Your task to perform on an android device: Open my contact list Image 0: 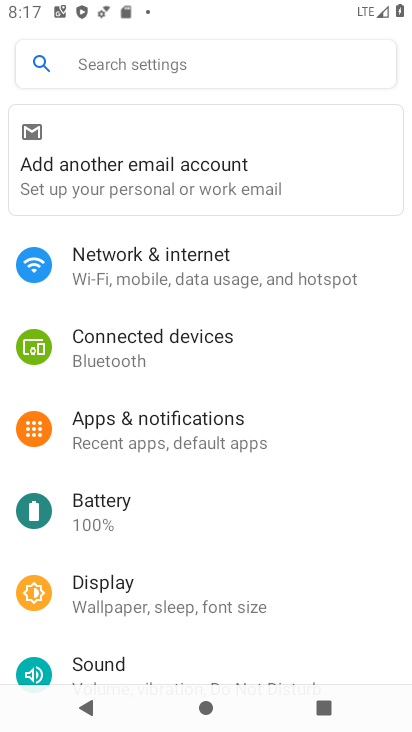
Step 0: drag from (139, 629) to (173, 280)
Your task to perform on an android device: Open my contact list Image 1: 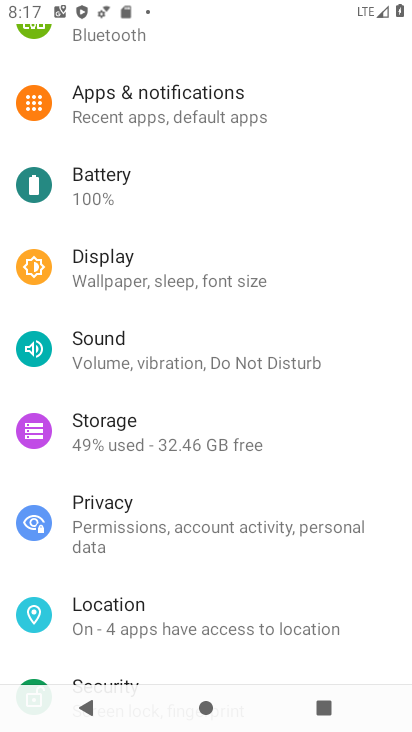
Step 1: press home button
Your task to perform on an android device: Open my contact list Image 2: 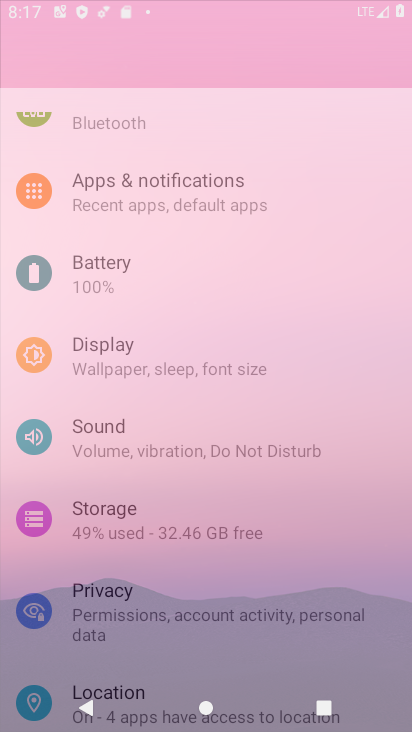
Step 2: press home button
Your task to perform on an android device: Open my contact list Image 3: 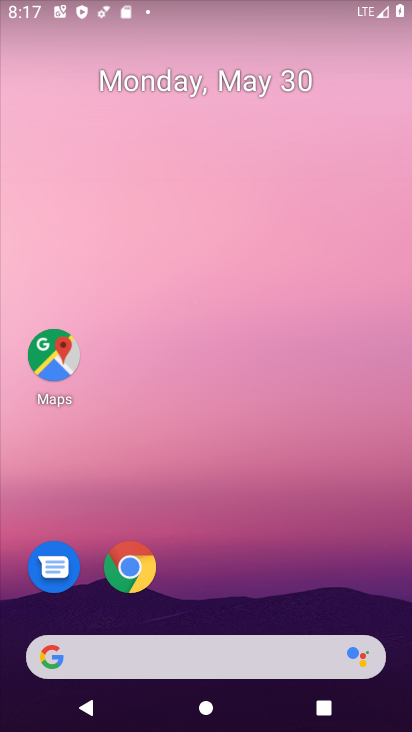
Step 3: drag from (282, 607) to (262, 145)
Your task to perform on an android device: Open my contact list Image 4: 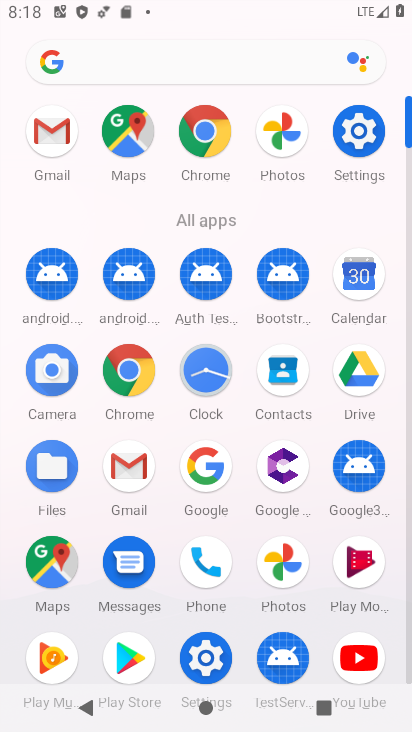
Step 4: click (273, 378)
Your task to perform on an android device: Open my contact list Image 5: 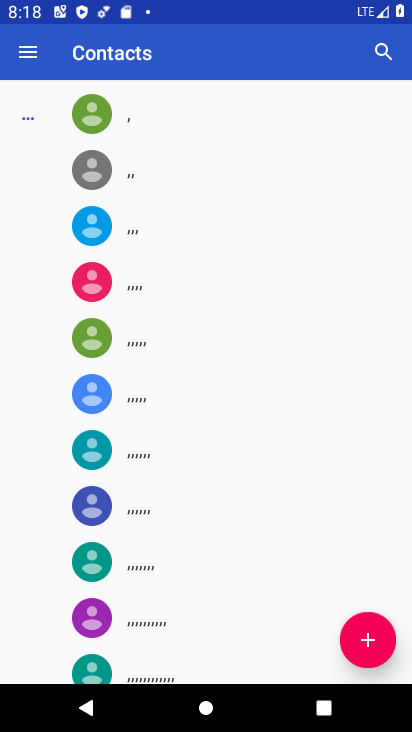
Step 5: task complete